Your task to perform on an android device: turn off smart reply in the gmail app Image 0: 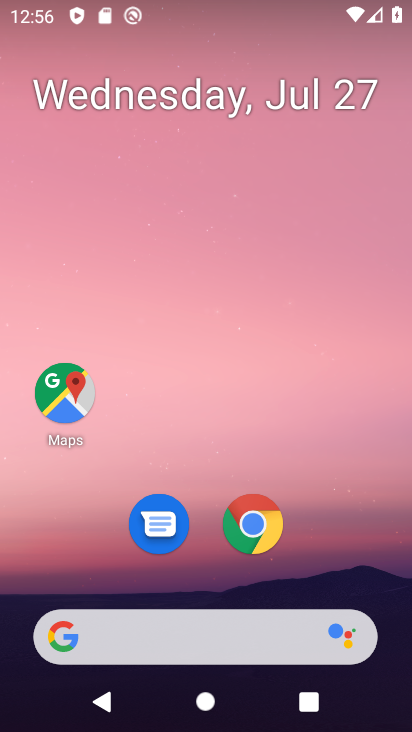
Step 0: drag from (322, 504) to (344, 89)
Your task to perform on an android device: turn off smart reply in the gmail app Image 1: 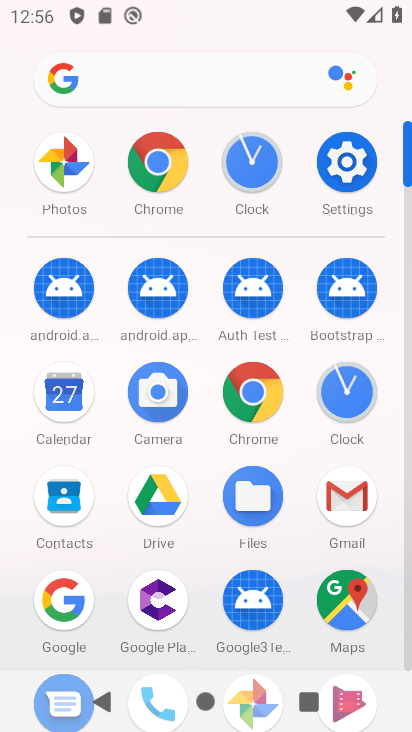
Step 1: click (348, 490)
Your task to perform on an android device: turn off smart reply in the gmail app Image 2: 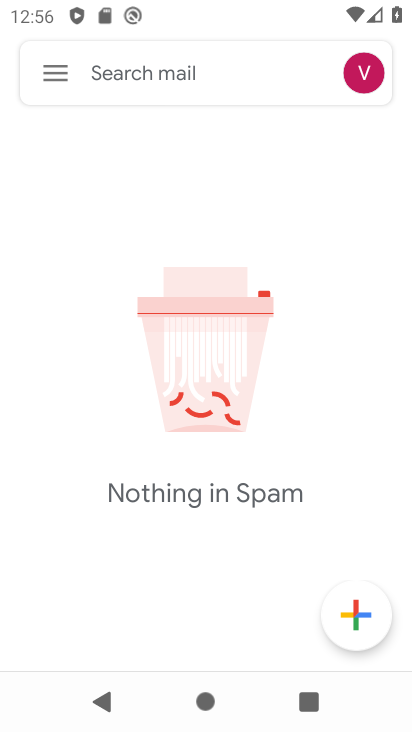
Step 2: click (62, 73)
Your task to perform on an android device: turn off smart reply in the gmail app Image 3: 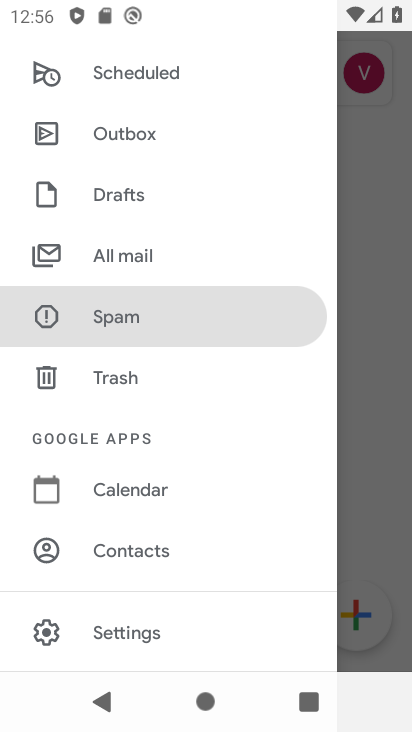
Step 3: click (143, 618)
Your task to perform on an android device: turn off smart reply in the gmail app Image 4: 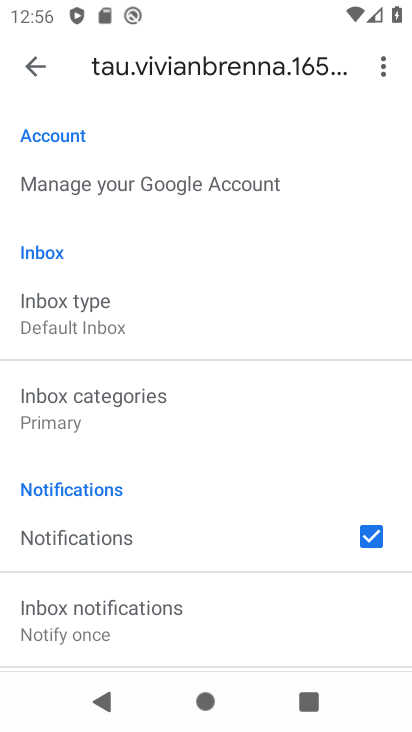
Step 4: drag from (224, 503) to (230, 11)
Your task to perform on an android device: turn off smart reply in the gmail app Image 5: 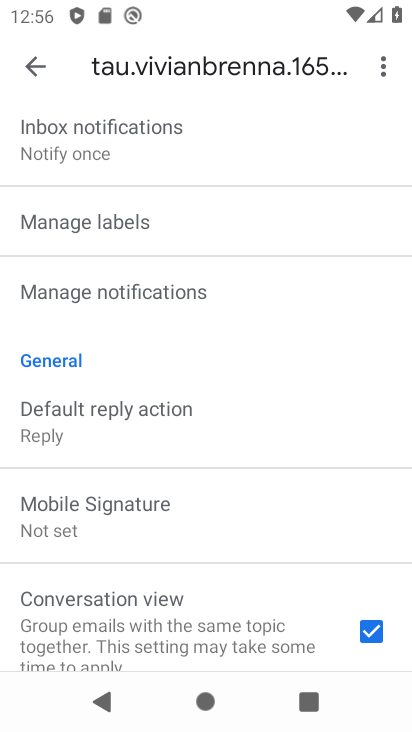
Step 5: drag from (246, 451) to (243, 103)
Your task to perform on an android device: turn off smart reply in the gmail app Image 6: 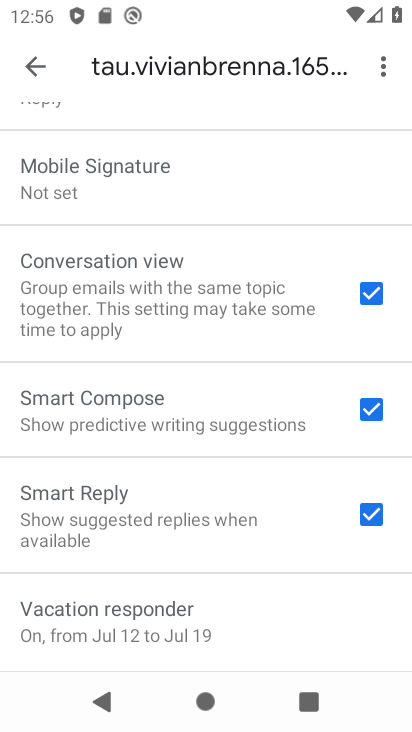
Step 6: click (372, 521)
Your task to perform on an android device: turn off smart reply in the gmail app Image 7: 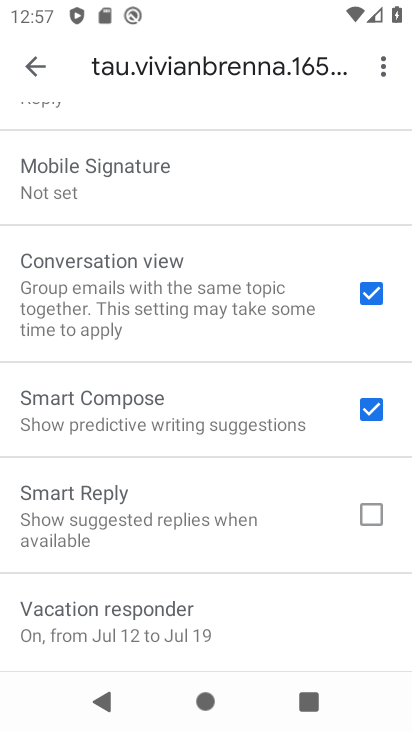
Step 7: task complete